Your task to perform on an android device: Open Chrome and go to the settings page Image 0: 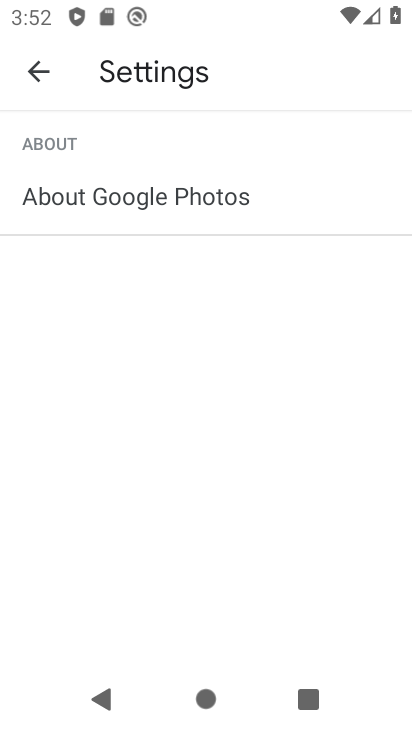
Step 0: press home button
Your task to perform on an android device: Open Chrome and go to the settings page Image 1: 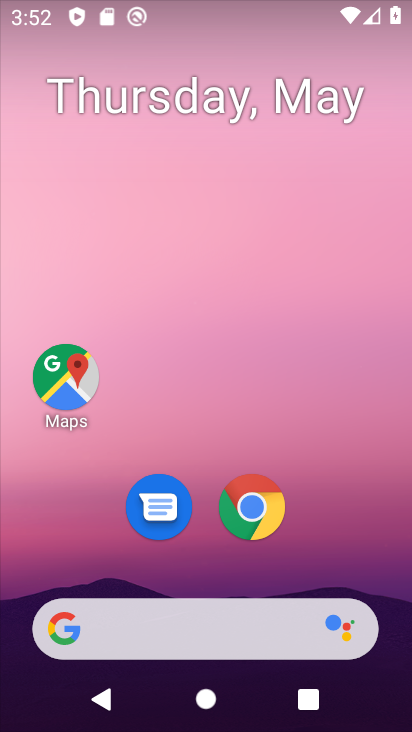
Step 1: drag from (281, 581) to (265, 89)
Your task to perform on an android device: Open Chrome and go to the settings page Image 2: 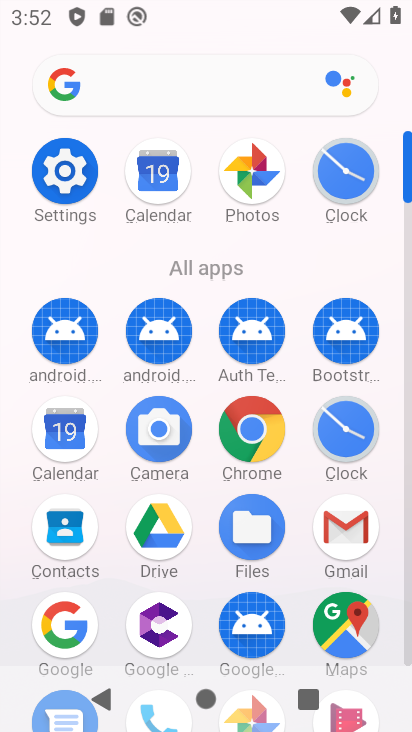
Step 2: click (253, 445)
Your task to perform on an android device: Open Chrome and go to the settings page Image 3: 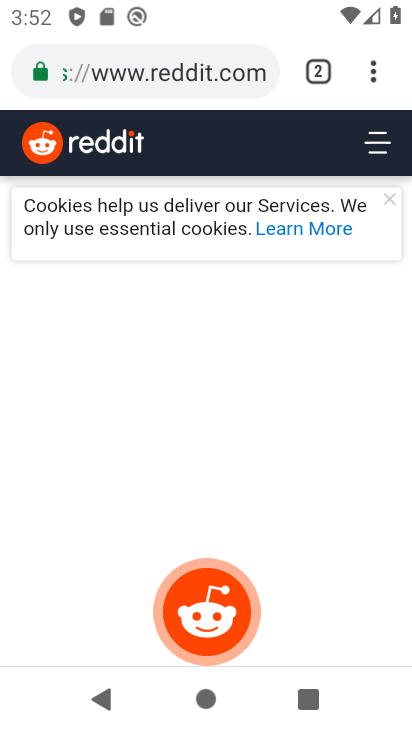
Step 3: click (368, 72)
Your task to perform on an android device: Open Chrome and go to the settings page Image 4: 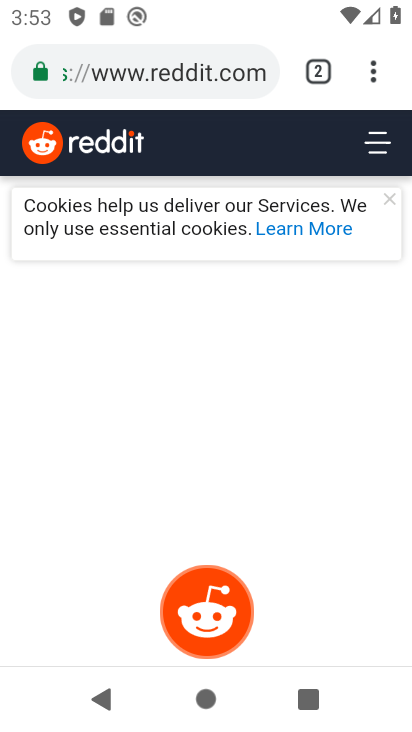
Step 4: click (369, 83)
Your task to perform on an android device: Open Chrome and go to the settings page Image 5: 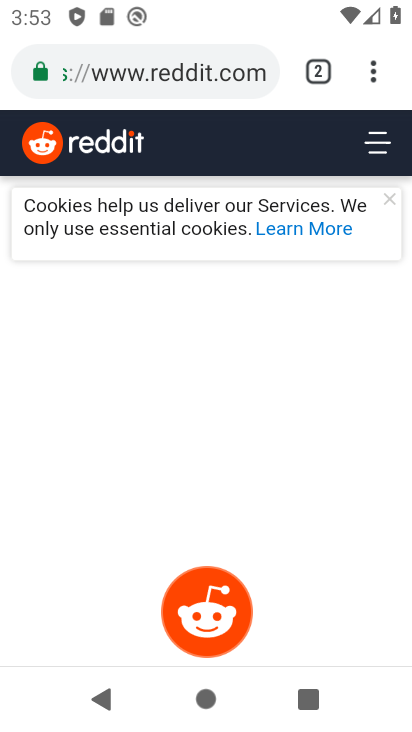
Step 5: click (372, 85)
Your task to perform on an android device: Open Chrome and go to the settings page Image 6: 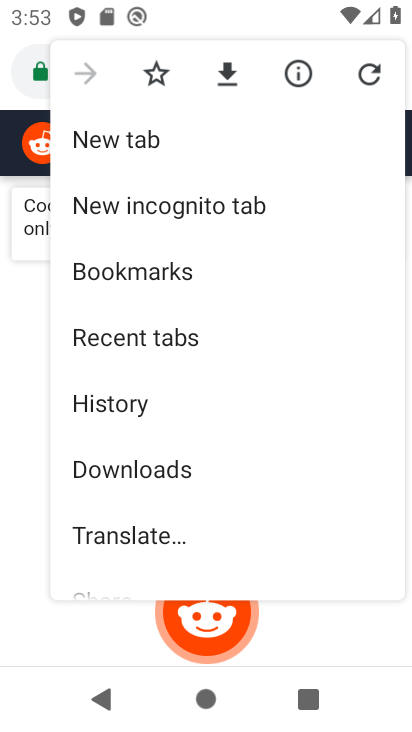
Step 6: drag from (160, 542) to (211, 230)
Your task to perform on an android device: Open Chrome and go to the settings page Image 7: 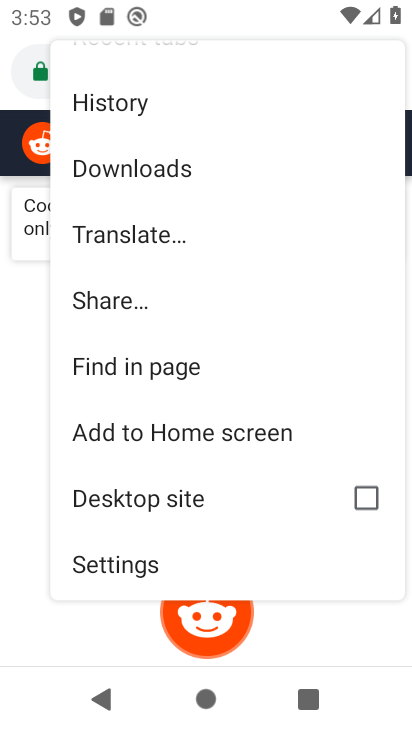
Step 7: click (163, 554)
Your task to perform on an android device: Open Chrome and go to the settings page Image 8: 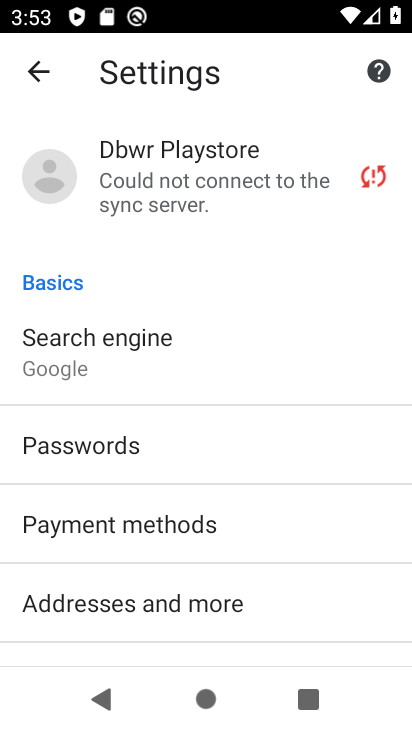
Step 8: task complete